Your task to perform on an android device: Open Yahoo.com Image 0: 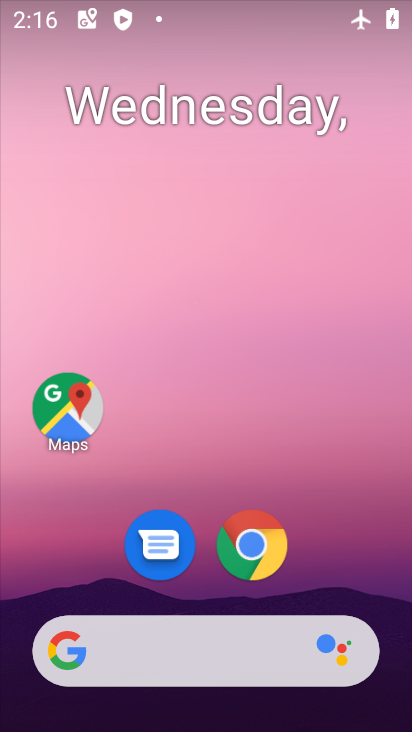
Step 0: click (251, 554)
Your task to perform on an android device: Open Yahoo.com Image 1: 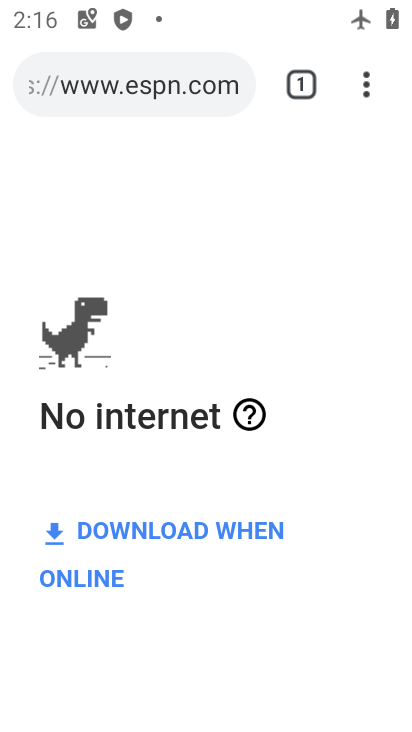
Step 1: click (200, 94)
Your task to perform on an android device: Open Yahoo.com Image 2: 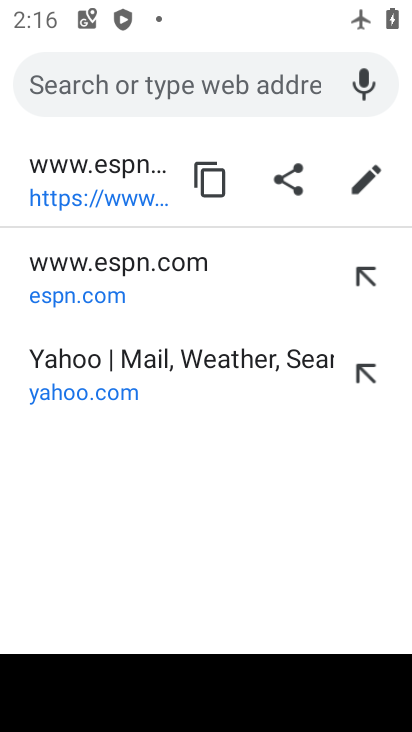
Step 2: click (100, 399)
Your task to perform on an android device: Open Yahoo.com Image 3: 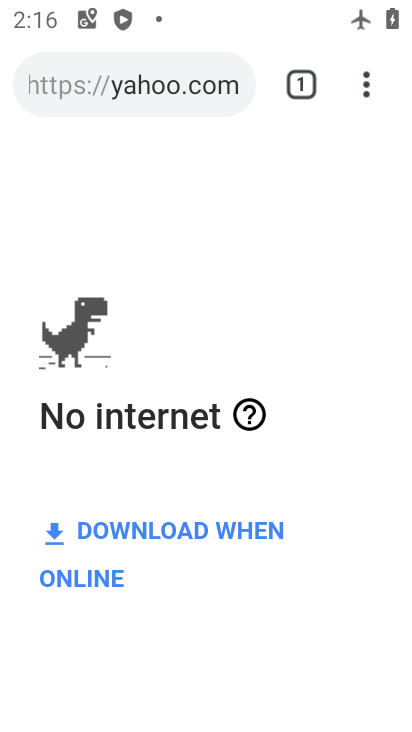
Step 3: task complete